Your task to perform on an android device: open wifi settings Image 0: 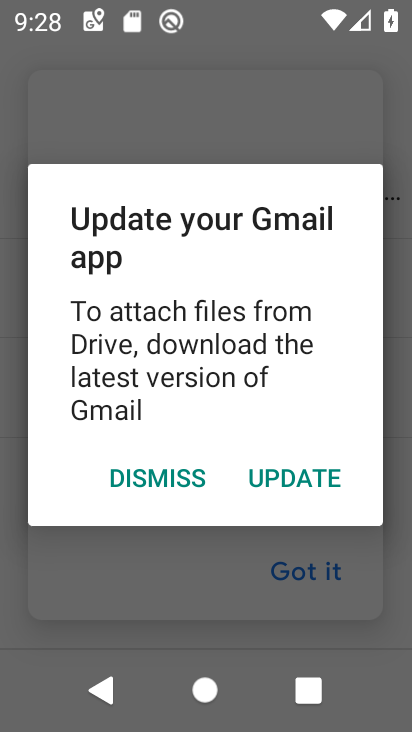
Step 0: press home button
Your task to perform on an android device: open wifi settings Image 1: 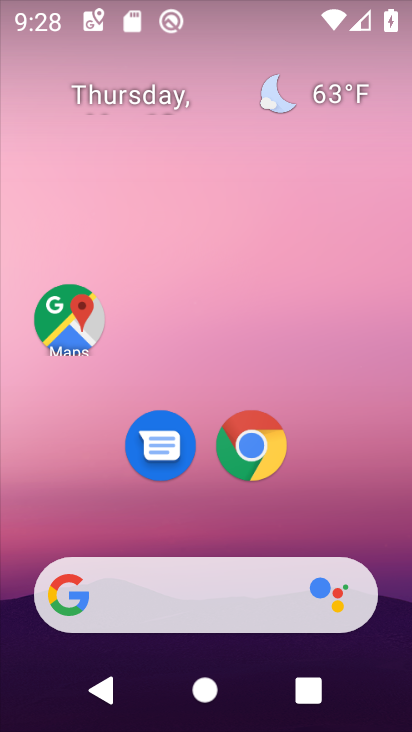
Step 1: drag from (379, 518) to (292, 92)
Your task to perform on an android device: open wifi settings Image 2: 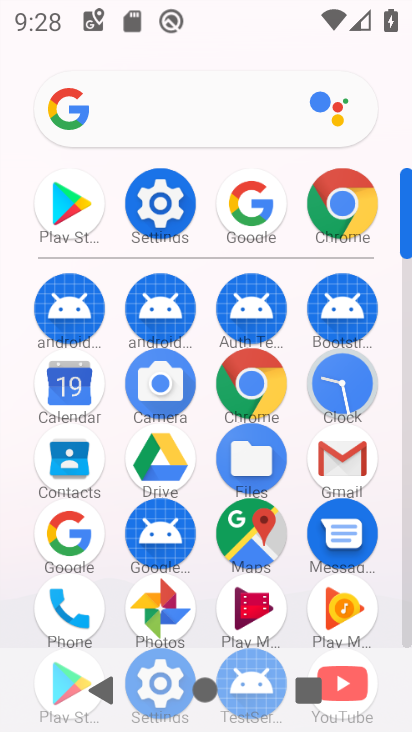
Step 2: click (179, 198)
Your task to perform on an android device: open wifi settings Image 3: 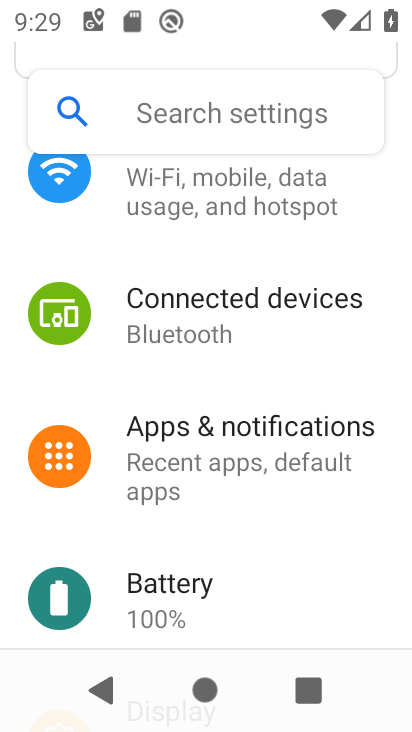
Step 3: drag from (246, 283) to (266, 517)
Your task to perform on an android device: open wifi settings Image 4: 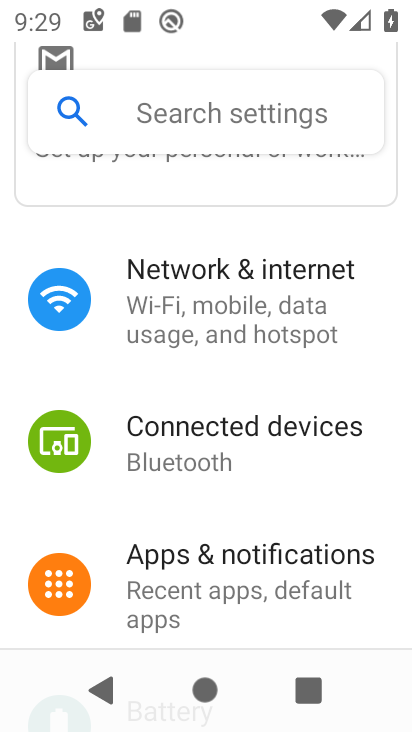
Step 4: click (247, 349)
Your task to perform on an android device: open wifi settings Image 5: 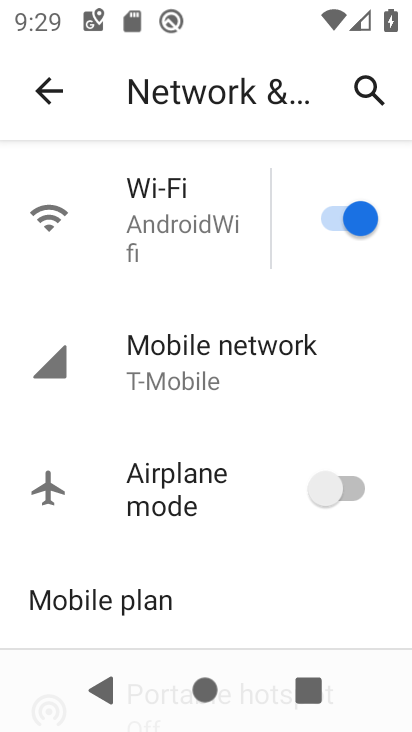
Step 5: click (201, 240)
Your task to perform on an android device: open wifi settings Image 6: 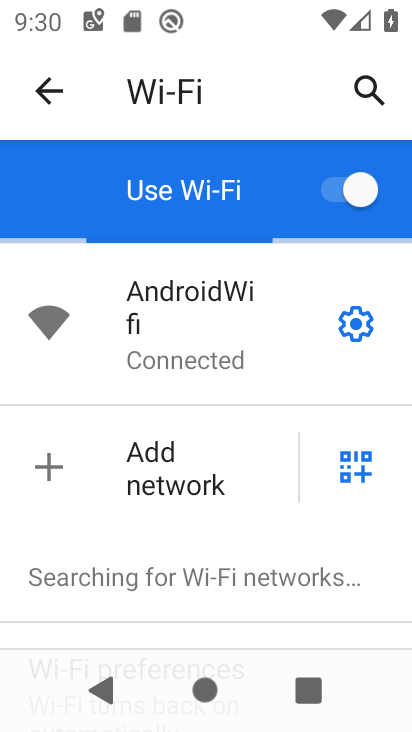
Step 6: task complete